Your task to perform on an android device: Open the phone app and click the voicemail tab. Image 0: 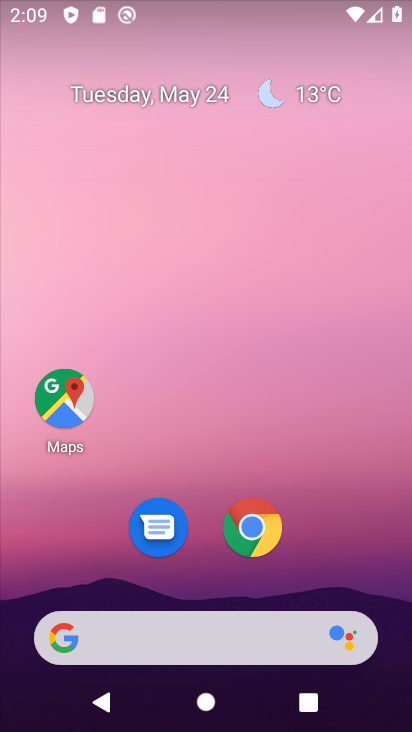
Step 0: drag from (196, 586) to (198, 2)
Your task to perform on an android device: Open the phone app and click the voicemail tab. Image 1: 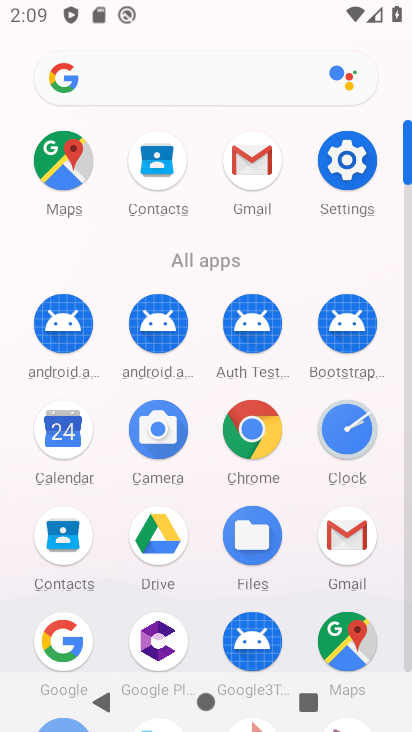
Step 1: drag from (218, 554) to (200, 175)
Your task to perform on an android device: Open the phone app and click the voicemail tab. Image 2: 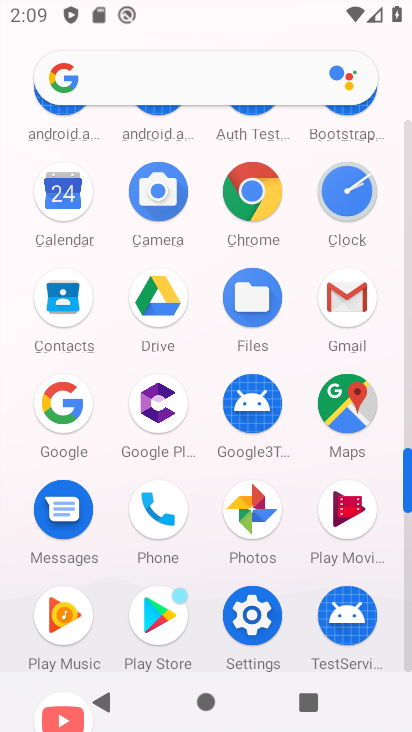
Step 2: click (165, 519)
Your task to perform on an android device: Open the phone app and click the voicemail tab. Image 3: 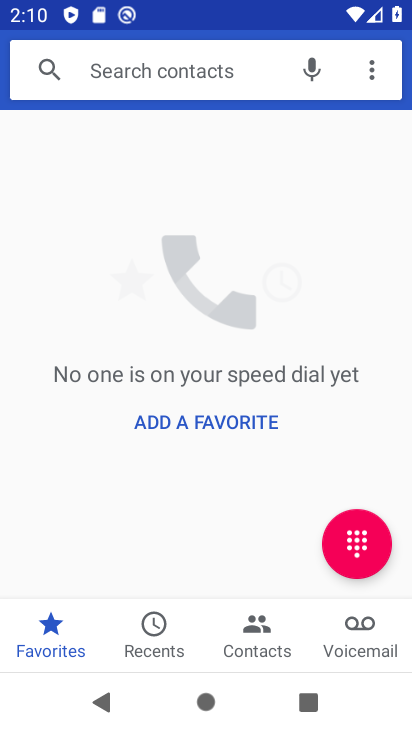
Step 3: click (369, 642)
Your task to perform on an android device: Open the phone app and click the voicemail tab. Image 4: 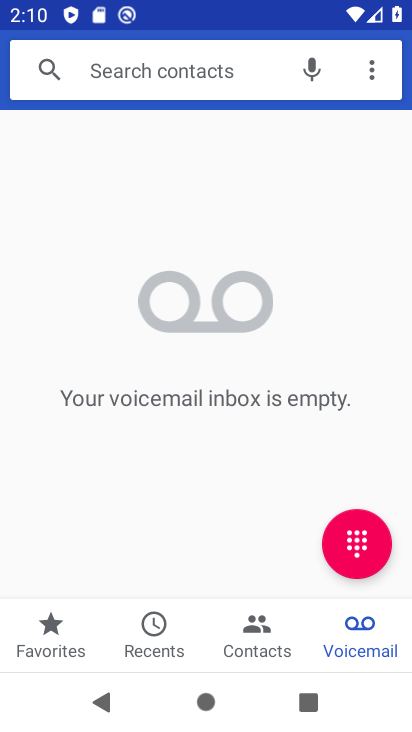
Step 4: task complete